Your task to perform on an android device: Play the last video I watched on Youtube Image 0: 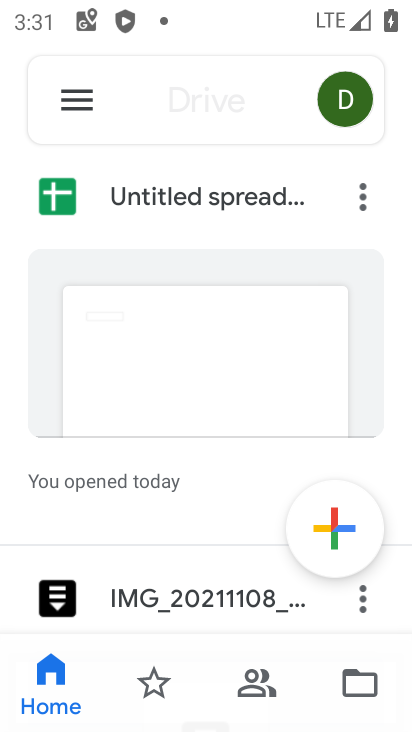
Step 0: press back button
Your task to perform on an android device: Play the last video I watched on Youtube Image 1: 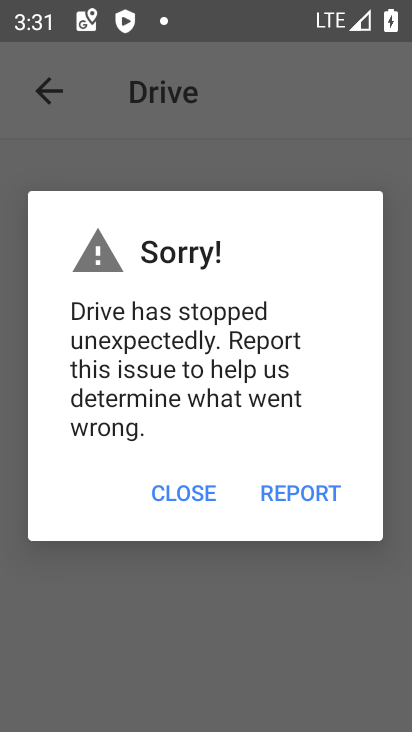
Step 1: press home button
Your task to perform on an android device: Play the last video I watched on Youtube Image 2: 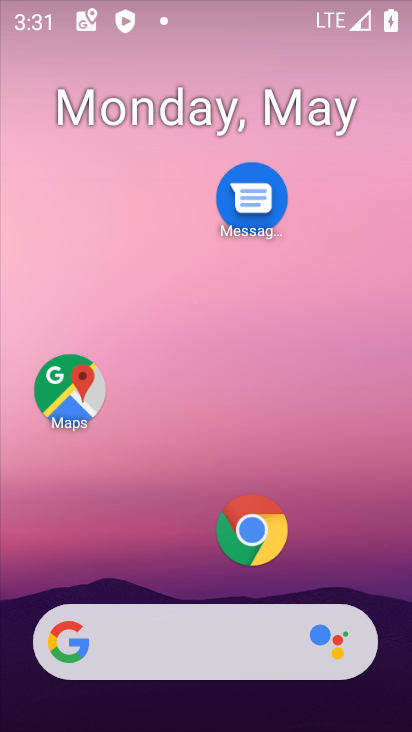
Step 2: drag from (151, 535) to (288, 15)
Your task to perform on an android device: Play the last video I watched on Youtube Image 3: 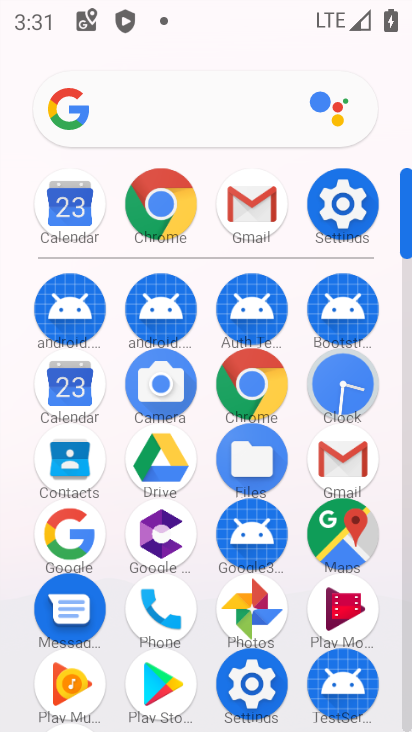
Step 3: drag from (176, 609) to (299, 29)
Your task to perform on an android device: Play the last video I watched on Youtube Image 4: 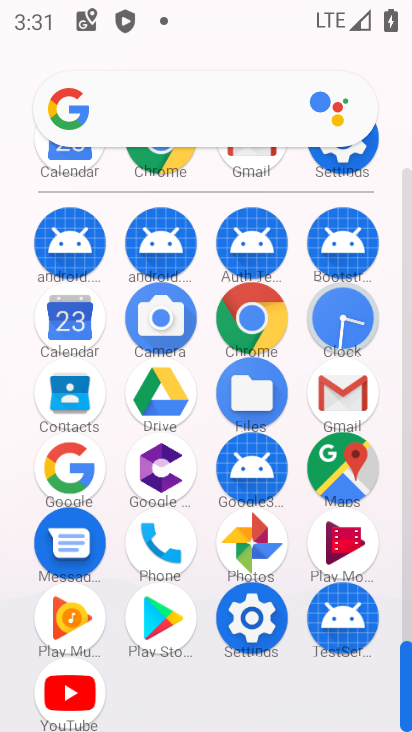
Step 4: click (75, 694)
Your task to perform on an android device: Play the last video I watched on Youtube Image 5: 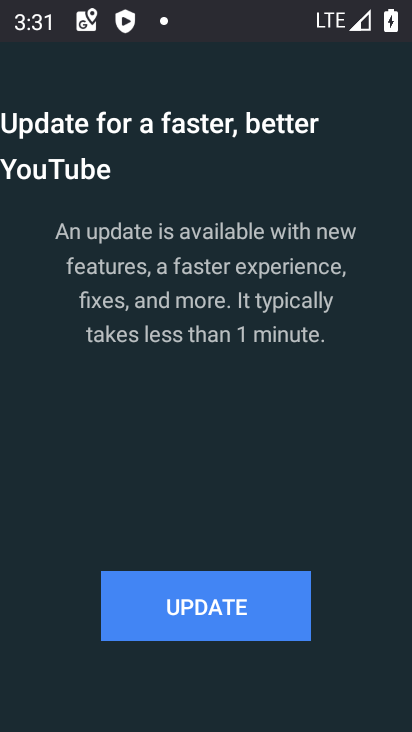
Step 5: click (205, 619)
Your task to perform on an android device: Play the last video I watched on Youtube Image 6: 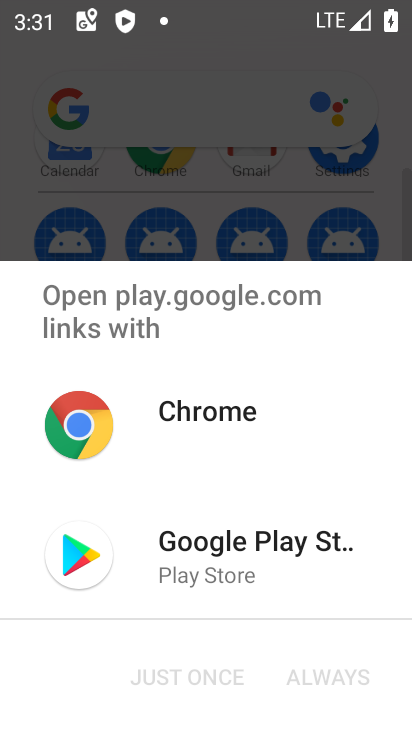
Step 6: click (229, 531)
Your task to perform on an android device: Play the last video I watched on Youtube Image 7: 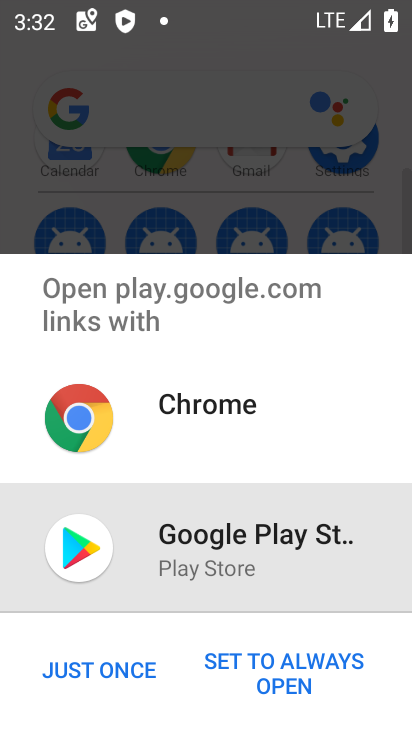
Step 7: click (111, 678)
Your task to perform on an android device: Play the last video I watched on Youtube Image 8: 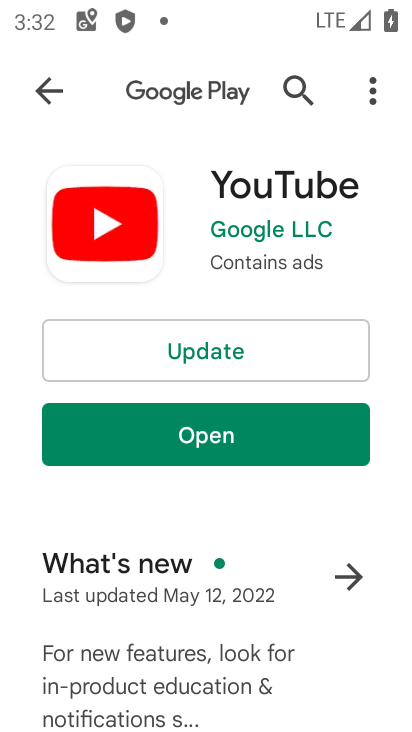
Step 8: click (185, 345)
Your task to perform on an android device: Play the last video I watched on Youtube Image 9: 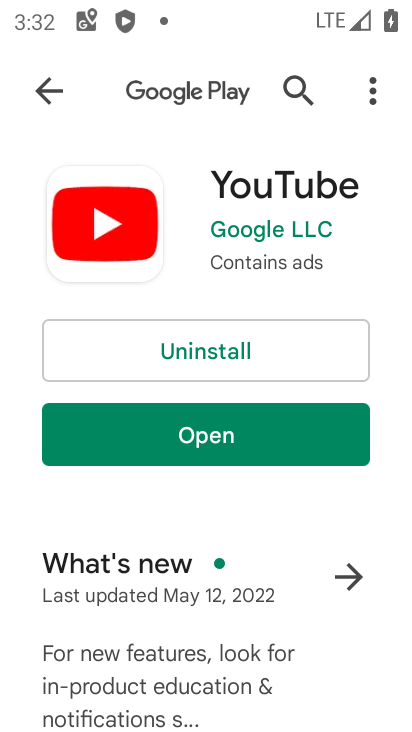
Step 9: click (194, 446)
Your task to perform on an android device: Play the last video I watched on Youtube Image 10: 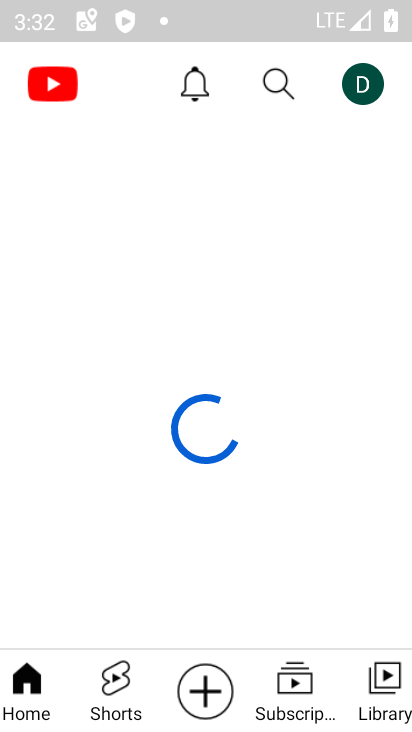
Step 10: click (374, 675)
Your task to perform on an android device: Play the last video I watched on Youtube Image 11: 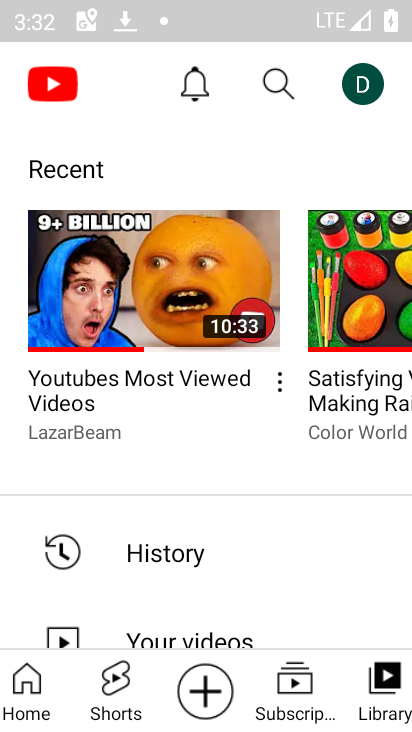
Step 11: click (137, 556)
Your task to perform on an android device: Play the last video I watched on Youtube Image 12: 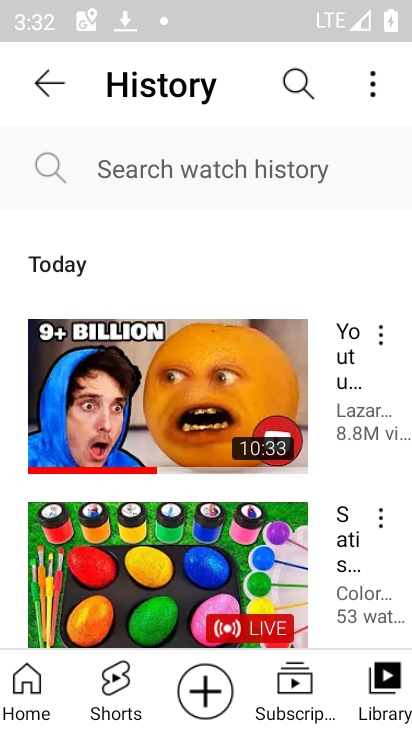
Step 12: click (172, 373)
Your task to perform on an android device: Play the last video I watched on Youtube Image 13: 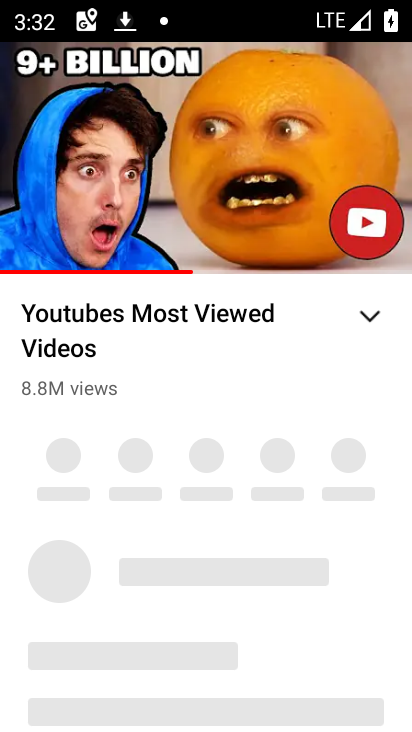
Step 13: task complete